Your task to perform on an android device: empty trash in google photos Image 0: 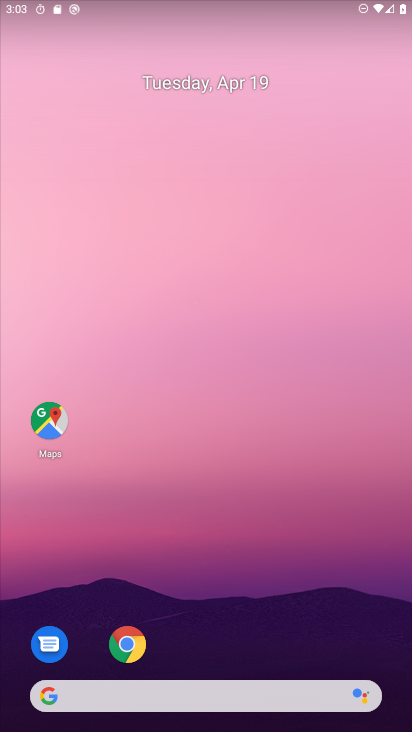
Step 0: drag from (224, 571) to (111, 99)
Your task to perform on an android device: empty trash in google photos Image 1: 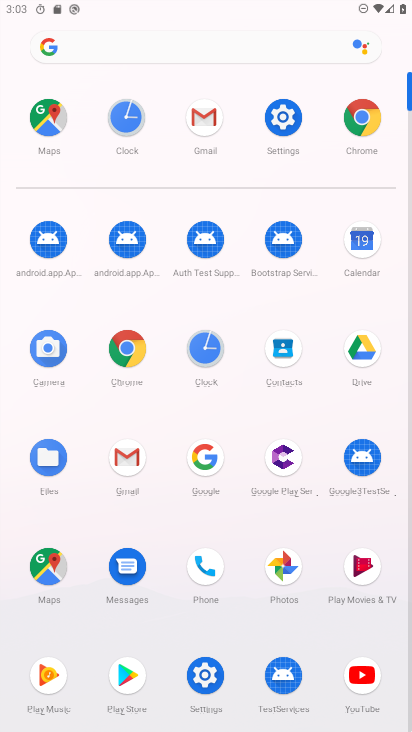
Step 1: click (284, 565)
Your task to perform on an android device: empty trash in google photos Image 2: 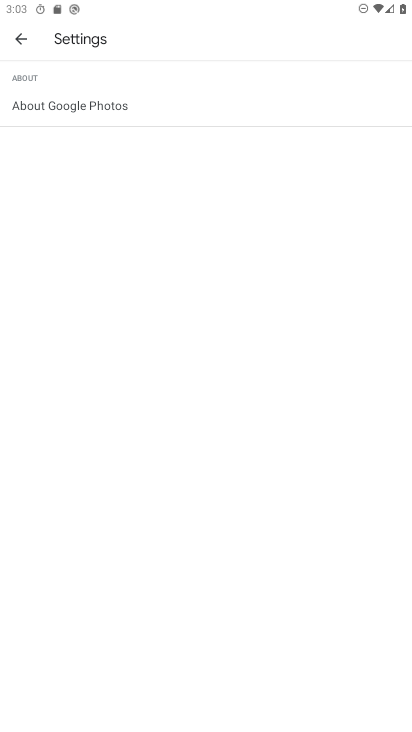
Step 2: press back button
Your task to perform on an android device: empty trash in google photos Image 3: 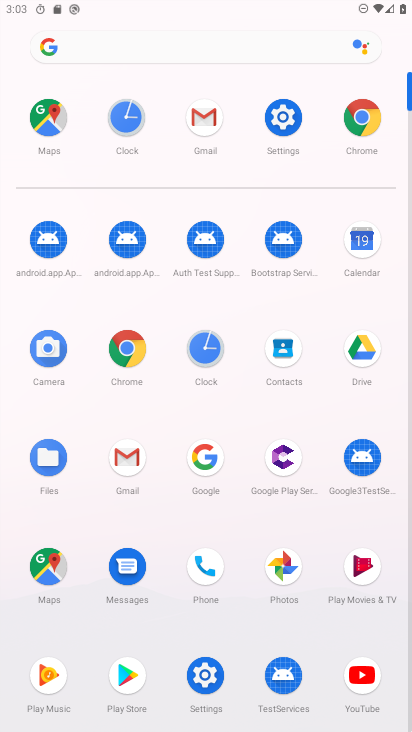
Step 3: click (286, 573)
Your task to perform on an android device: empty trash in google photos Image 4: 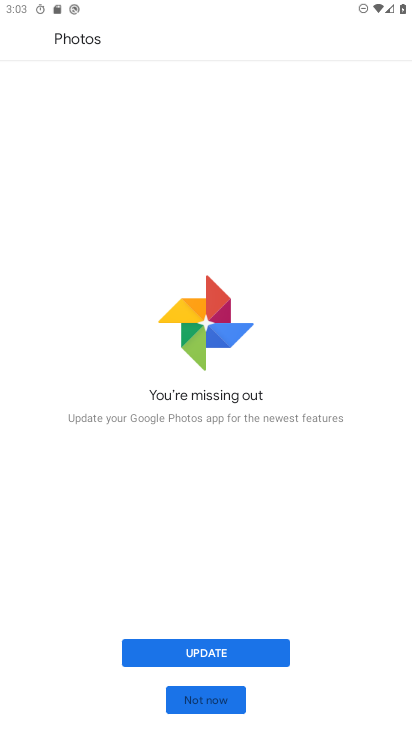
Step 4: click (203, 701)
Your task to perform on an android device: empty trash in google photos Image 5: 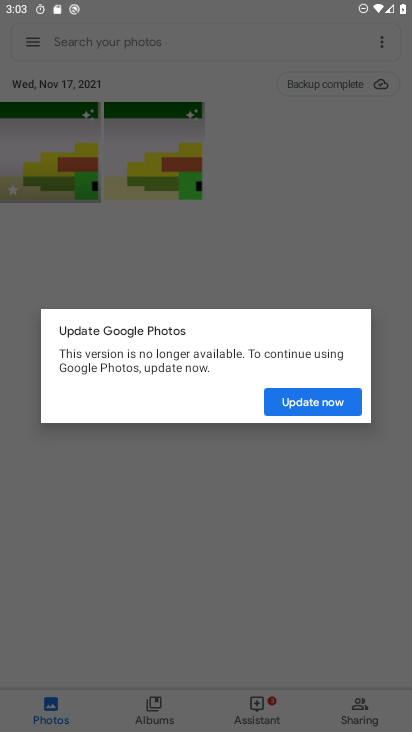
Step 5: click (303, 398)
Your task to perform on an android device: empty trash in google photos Image 6: 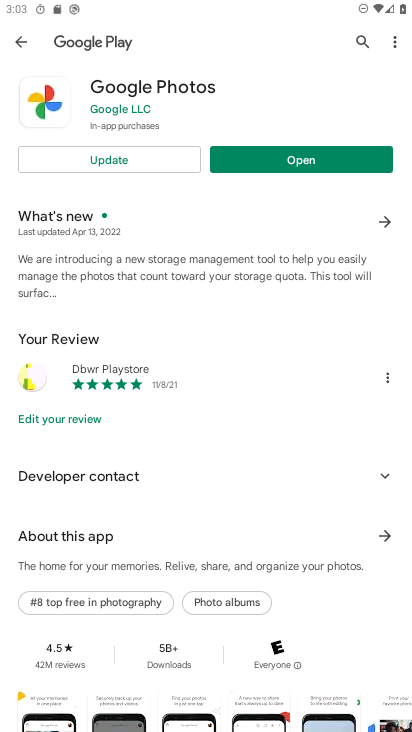
Step 6: click (155, 148)
Your task to perform on an android device: empty trash in google photos Image 7: 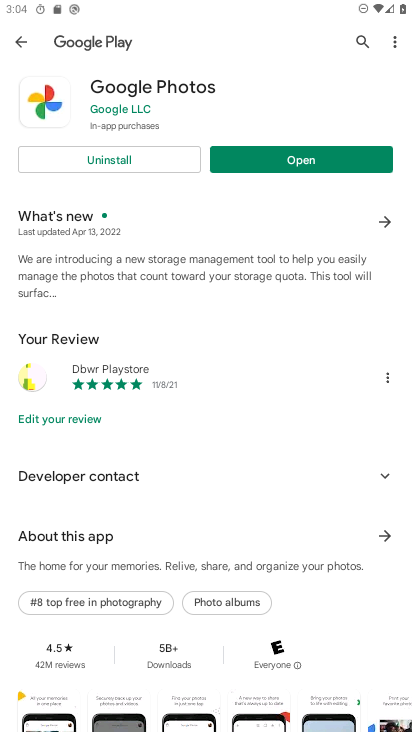
Step 7: click (315, 159)
Your task to perform on an android device: empty trash in google photos Image 8: 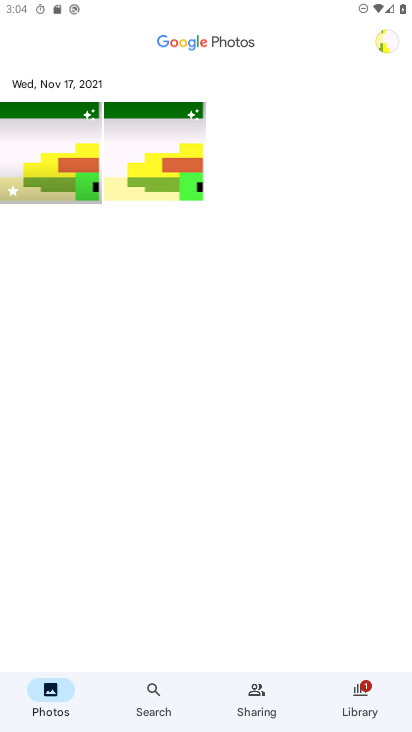
Step 8: click (363, 692)
Your task to perform on an android device: empty trash in google photos Image 9: 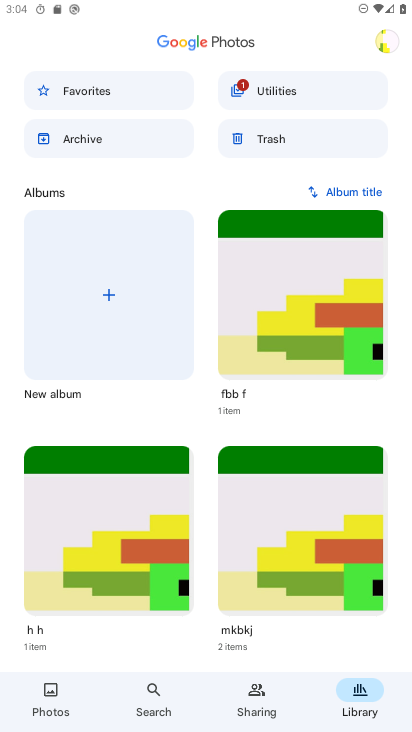
Step 9: click (308, 140)
Your task to perform on an android device: empty trash in google photos Image 10: 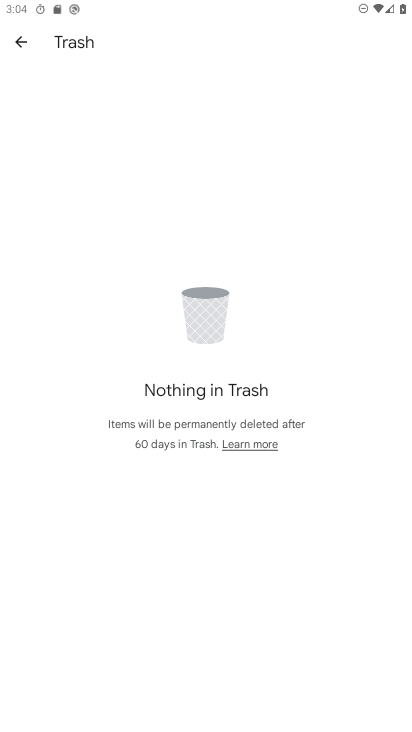
Step 10: task complete